Your task to perform on an android device: open a bookmark in the chrome app Image 0: 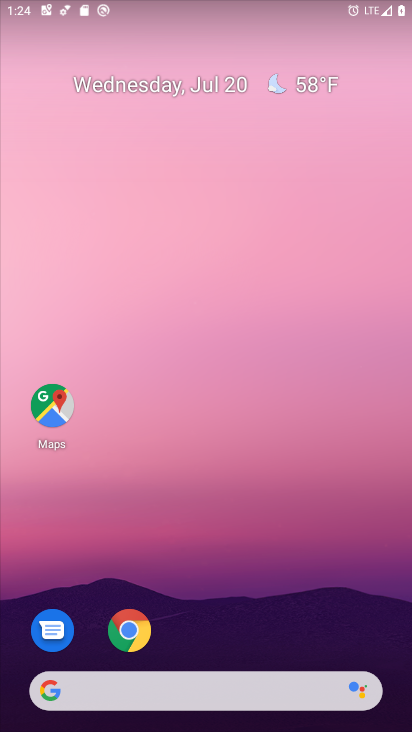
Step 0: drag from (194, 696) to (90, 4)
Your task to perform on an android device: open a bookmark in the chrome app Image 1: 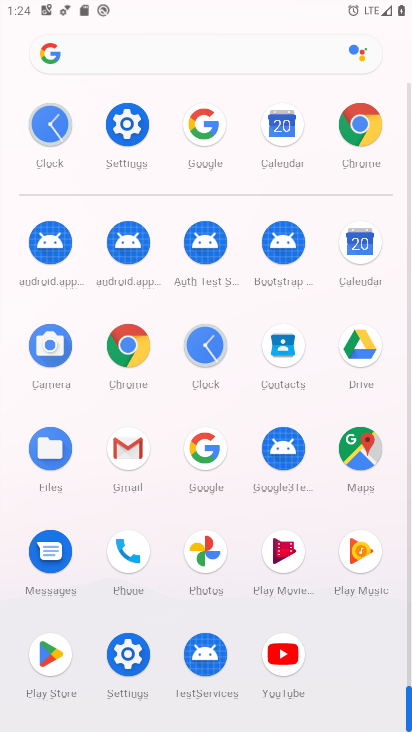
Step 1: click (356, 149)
Your task to perform on an android device: open a bookmark in the chrome app Image 2: 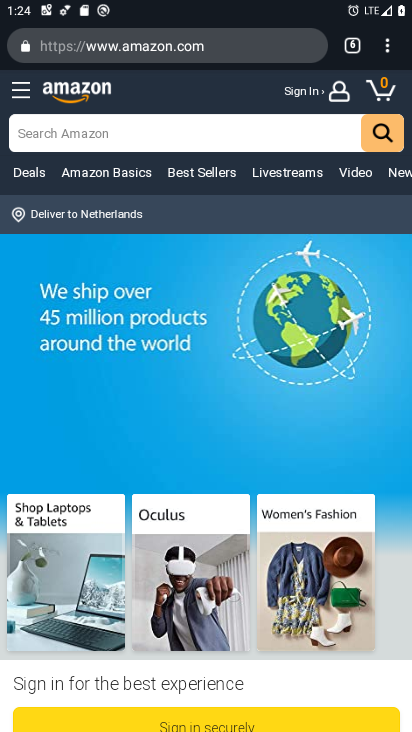
Step 2: click (386, 52)
Your task to perform on an android device: open a bookmark in the chrome app Image 3: 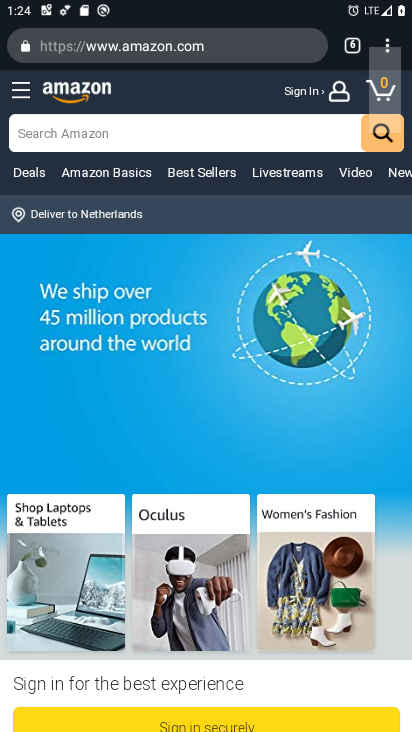
Step 3: click (391, 53)
Your task to perform on an android device: open a bookmark in the chrome app Image 4: 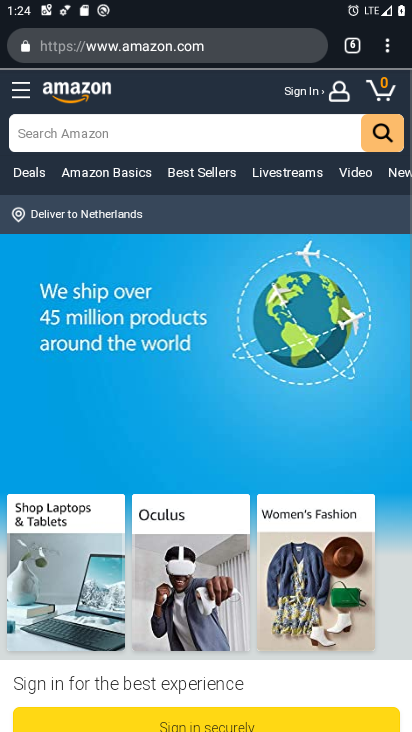
Step 4: click (390, 59)
Your task to perform on an android device: open a bookmark in the chrome app Image 5: 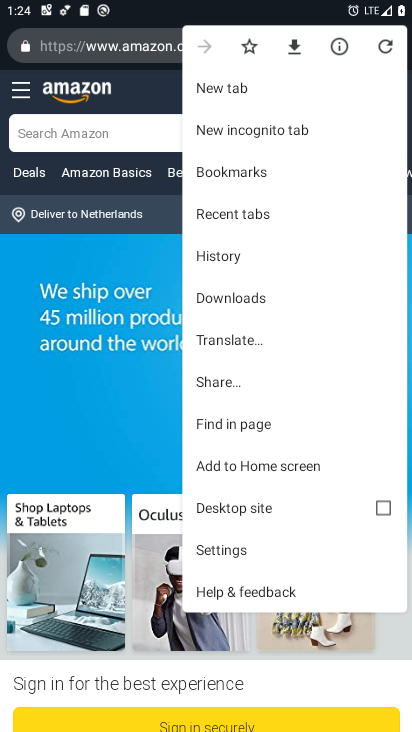
Step 5: click (239, 171)
Your task to perform on an android device: open a bookmark in the chrome app Image 6: 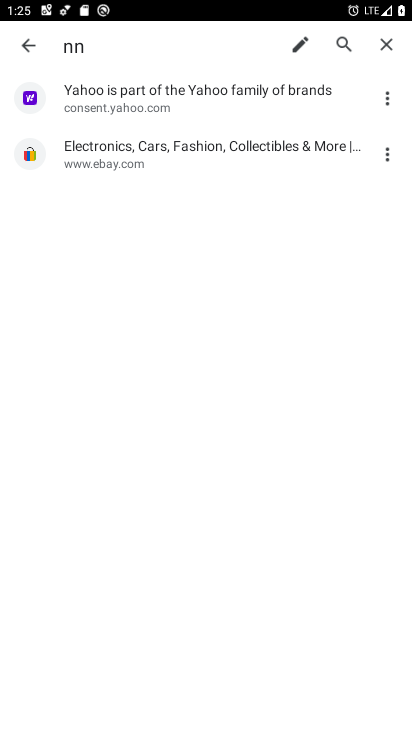
Step 6: click (230, 148)
Your task to perform on an android device: open a bookmark in the chrome app Image 7: 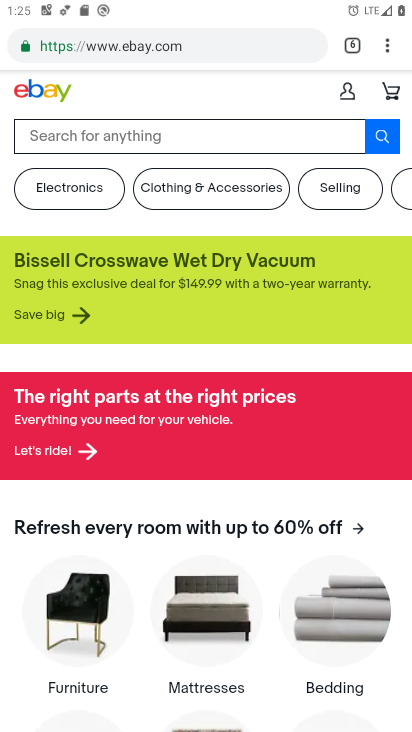
Step 7: task complete